Your task to perform on an android device: Play the last video I watched on Youtube Image 0: 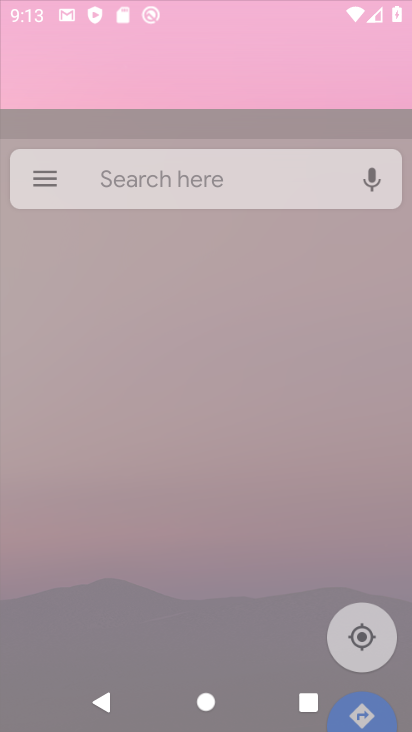
Step 0: click (193, 23)
Your task to perform on an android device: Play the last video I watched on Youtube Image 1: 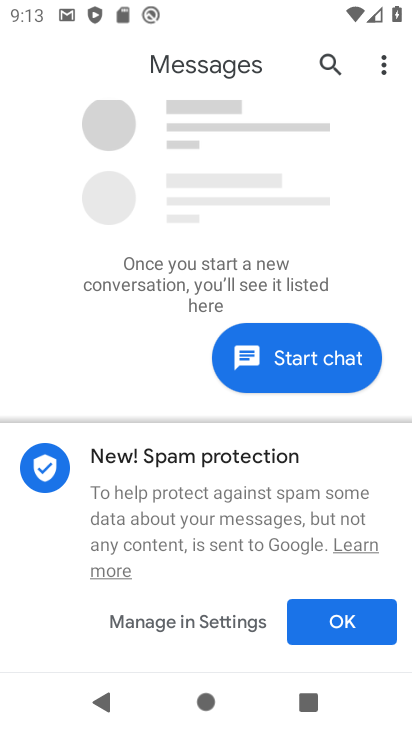
Step 1: press home button
Your task to perform on an android device: Play the last video I watched on Youtube Image 2: 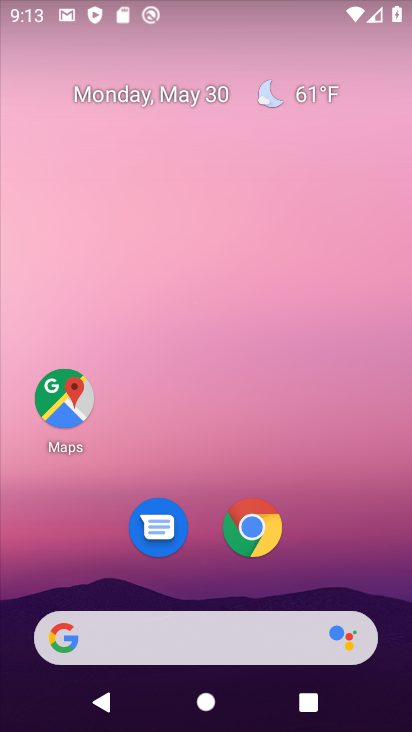
Step 2: drag from (318, 580) to (299, 9)
Your task to perform on an android device: Play the last video I watched on Youtube Image 3: 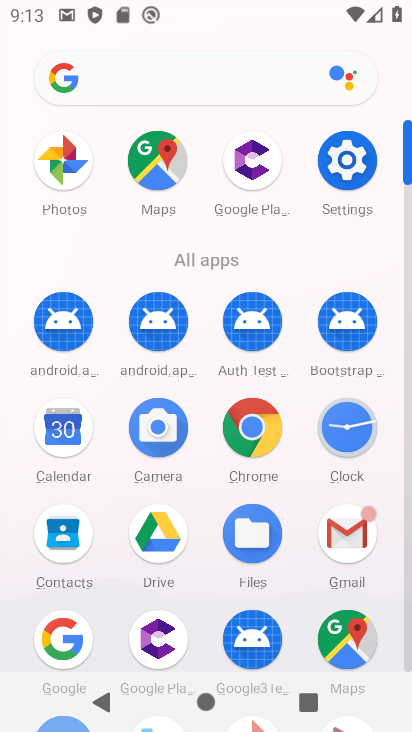
Step 3: drag from (197, 561) to (222, 0)
Your task to perform on an android device: Play the last video I watched on Youtube Image 4: 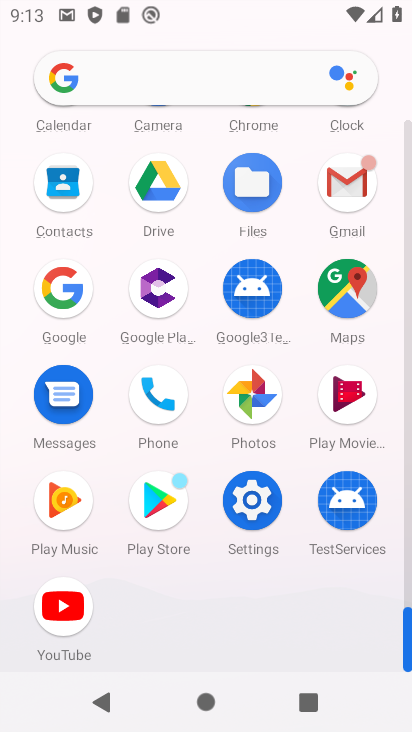
Step 4: click (59, 598)
Your task to perform on an android device: Play the last video I watched on Youtube Image 5: 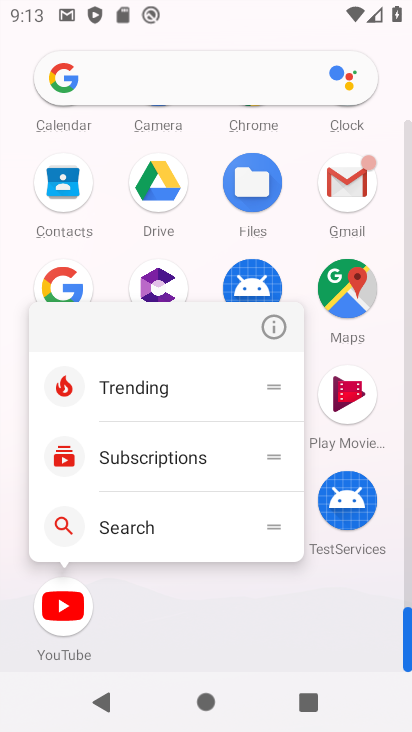
Step 5: click (68, 598)
Your task to perform on an android device: Play the last video I watched on Youtube Image 6: 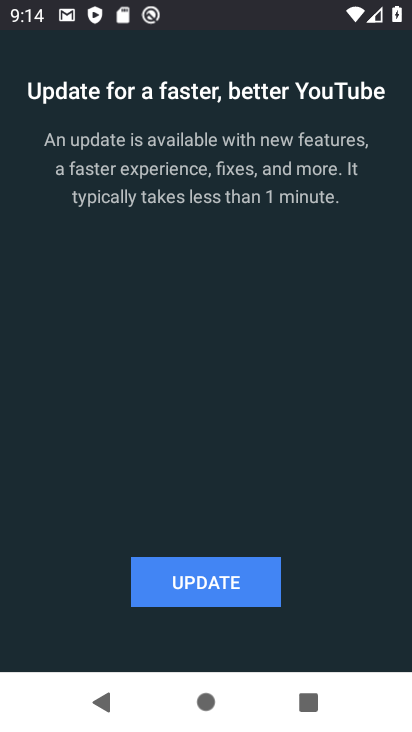
Step 6: click (185, 584)
Your task to perform on an android device: Play the last video I watched on Youtube Image 7: 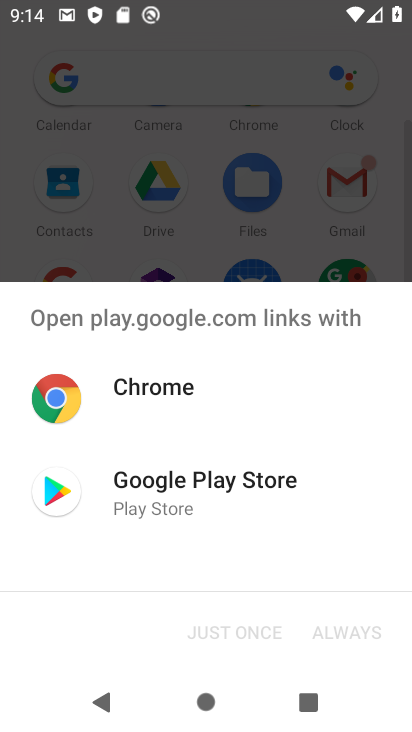
Step 7: click (111, 476)
Your task to perform on an android device: Play the last video I watched on Youtube Image 8: 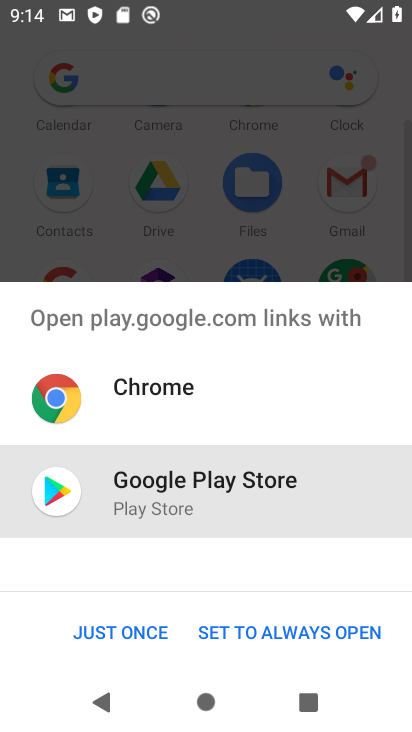
Step 8: click (108, 625)
Your task to perform on an android device: Play the last video I watched on Youtube Image 9: 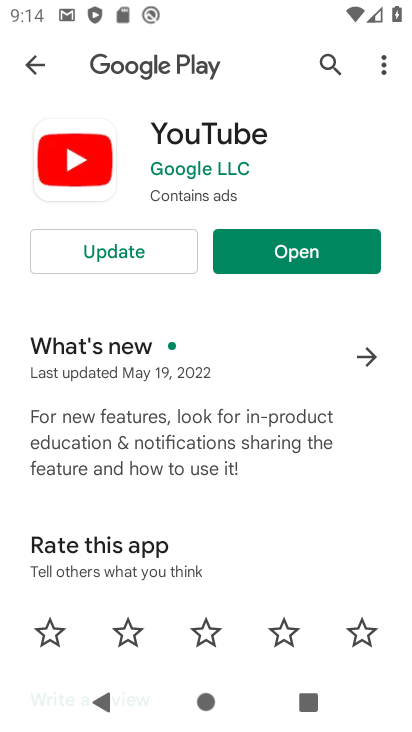
Step 9: click (144, 264)
Your task to perform on an android device: Play the last video I watched on Youtube Image 10: 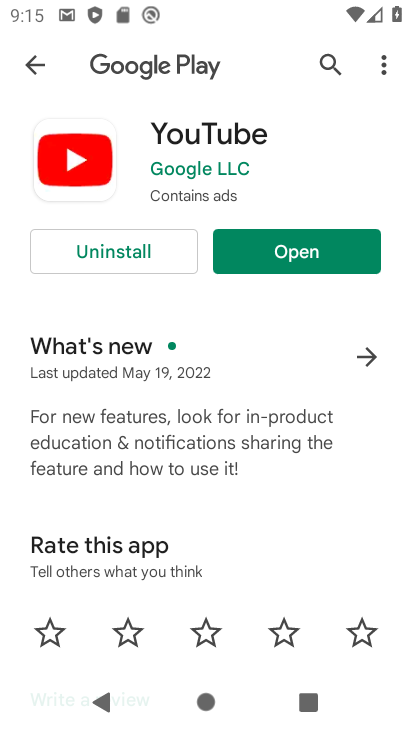
Step 10: click (320, 249)
Your task to perform on an android device: Play the last video I watched on Youtube Image 11: 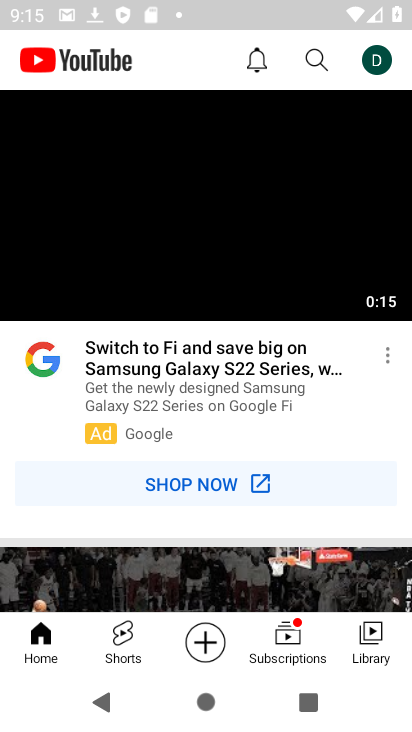
Step 11: click (379, 655)
Your task to perform on an android device: Play the last video I watched on Youtube Image 12: 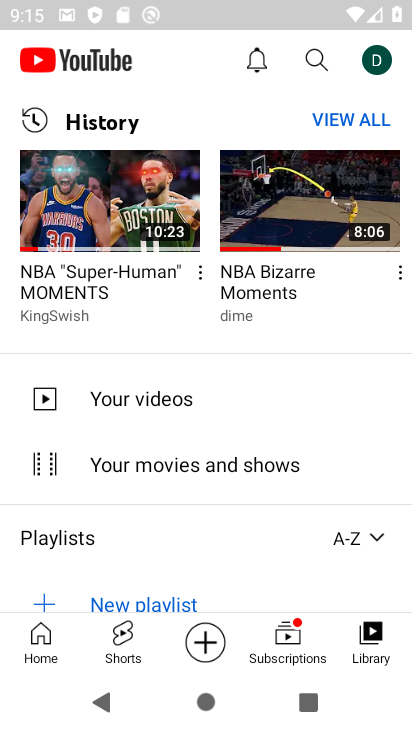
Step 12: click (114, 196)
Your task to perform on an android device: Play the last video I watched on Youtube Image 13: 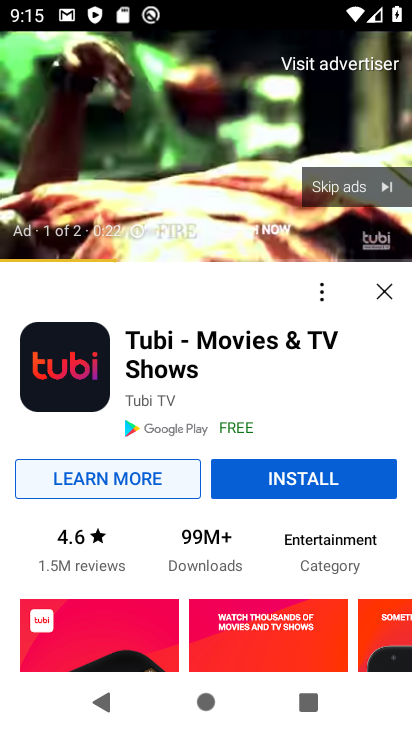
Step 13: task complete